Your task to perform on an android device: turn on priority inbox in the gmail app Image 0: 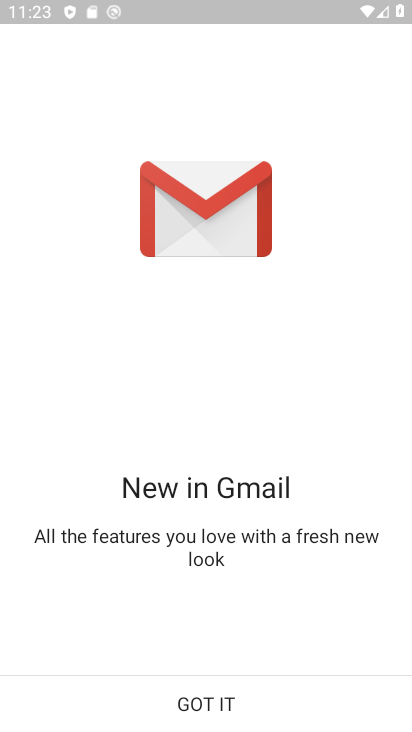
Step 0: click (166, 721)
Your task to perform on an android device: turn on priority inbox in the gmail app Image 1: 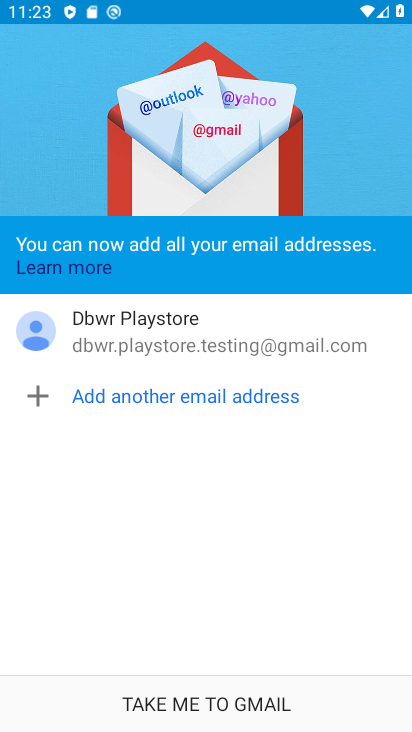
Step 1: click (170, 697)
Your task to perform on an android device: turn on priority inbox in the gmail app Image 2: 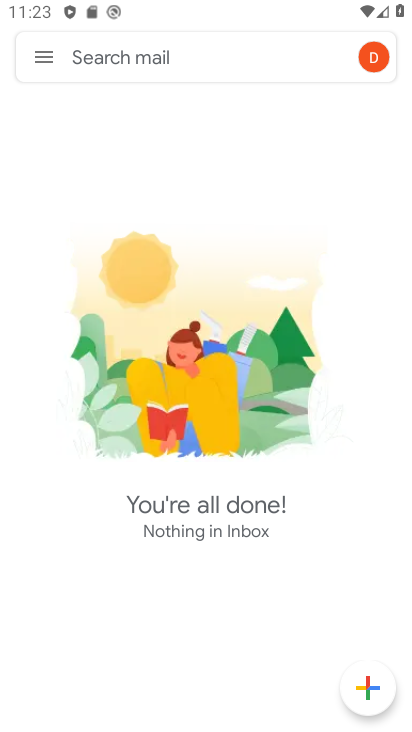
Step 2: click (38, 55)
Your task to perform on an android device: turn on priority inbox in the gmail app Image 3: 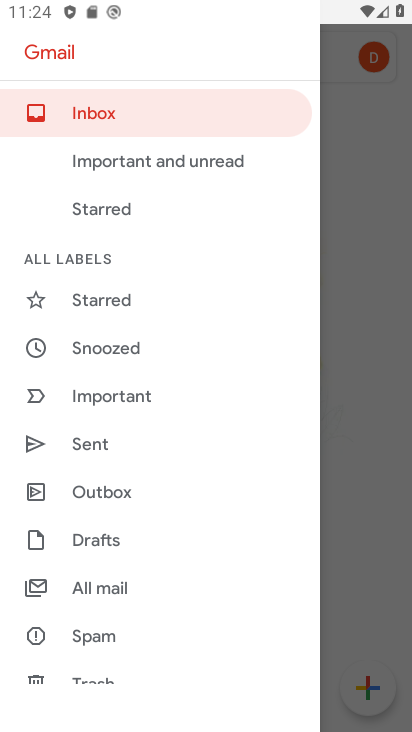
Step 3: drag from (137, 508) to (128, 209)
Your task to perform on an android device: turn on priority inbox in the gmail app Image 4: 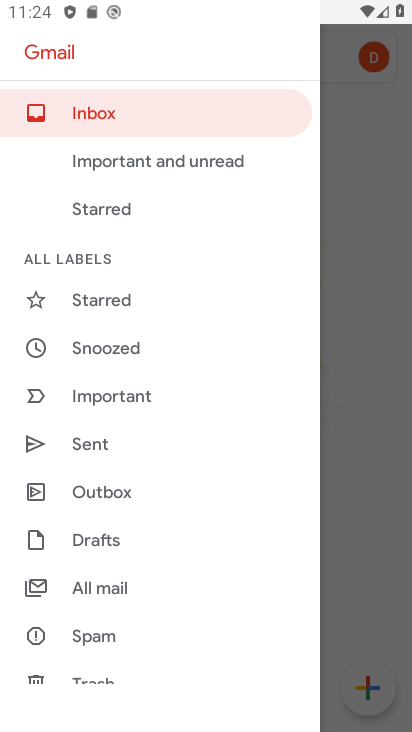
Step 4: drag from (136, 568) to (163, 244)
Your task to perform on an android device: turn on priority inbox in the gmail app Image 5: 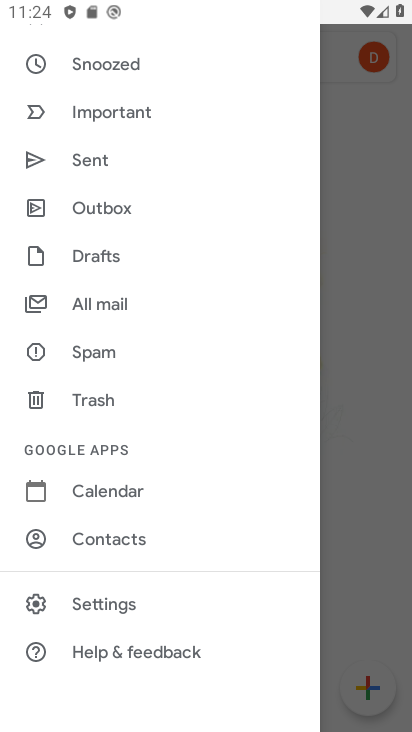
Step 5: click (125, 596)
Your task to perform on an android device: turn on priority inbox in the gmail app Image 6: 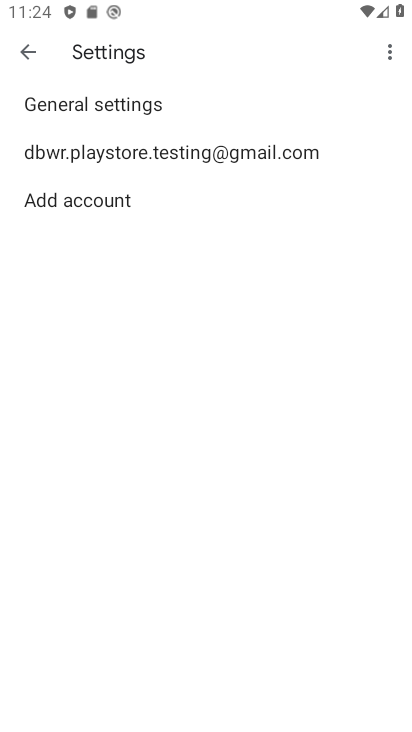
Step 6: click (142, 161)
Your task to perform on an android device: turn on priority inbox in the gmail app Image 7: 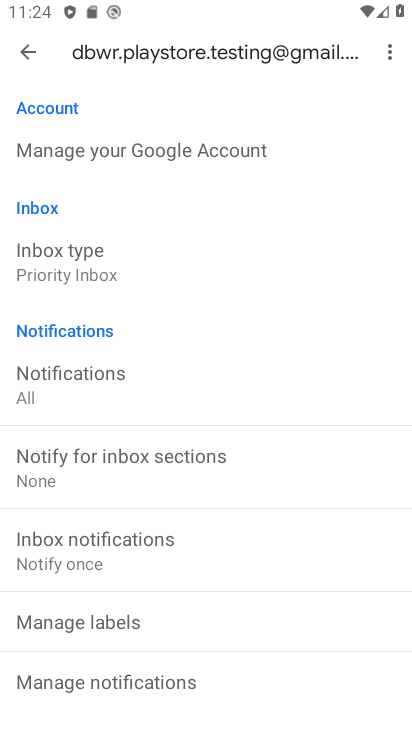
Step 7: click (110, 262)
Your task to perform on an android device: turn on priority inbox in the gmail app Image 8: 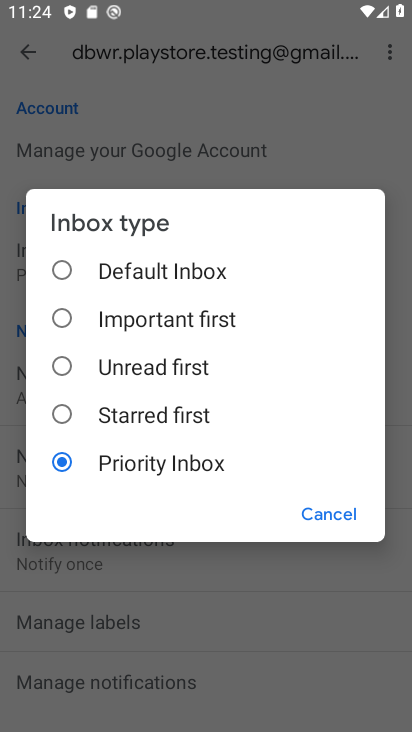
Step 8: task complete